Your task to perform on an android device: toggle notification dots Image 0: 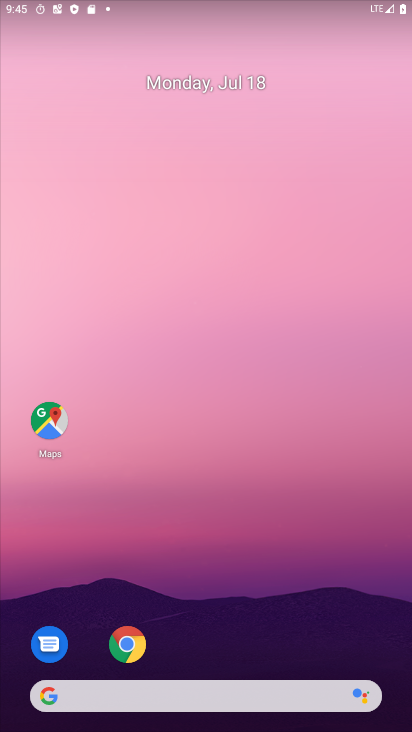
Step 0: drag from (215, 682) to (155, 177)
Your task to perform on an android device: toggle notification dots Image 1: 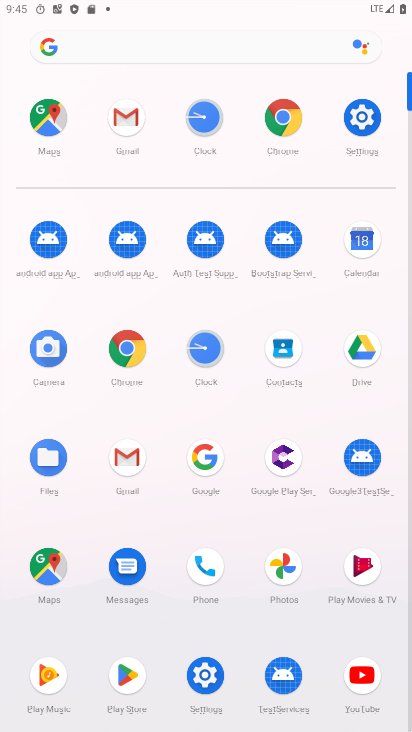
Step 1: click (209, 662)
Your task to perform on an android device: toggle notification dots Image 2: 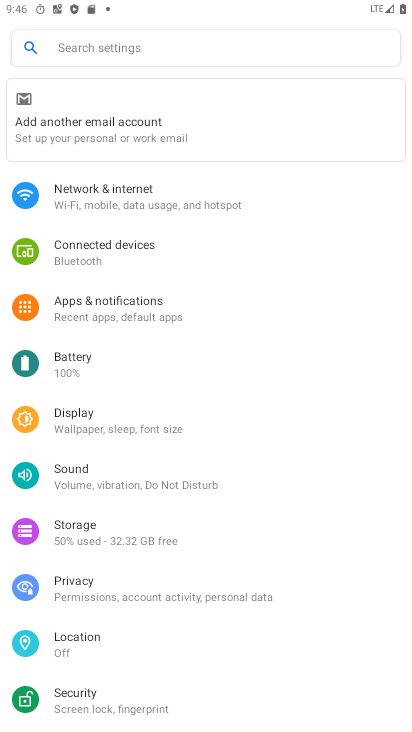
Step 2: click (97, 316)
Your task to perform on an android device: toggle notification dots Image 3: 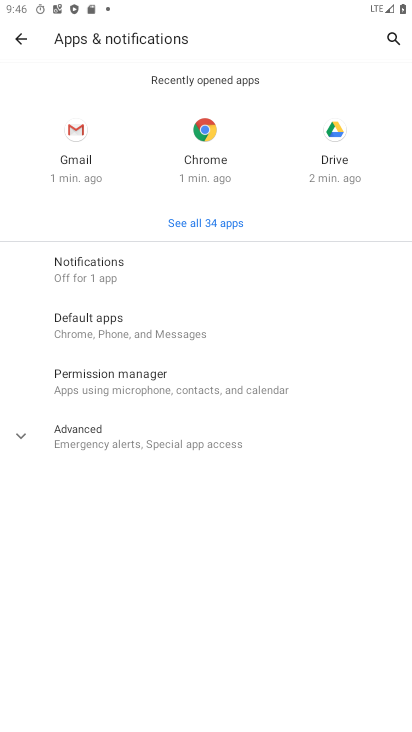
Step 3: click (92, 437)
Your task to perform on an android device: toggle notification dots Image 4: 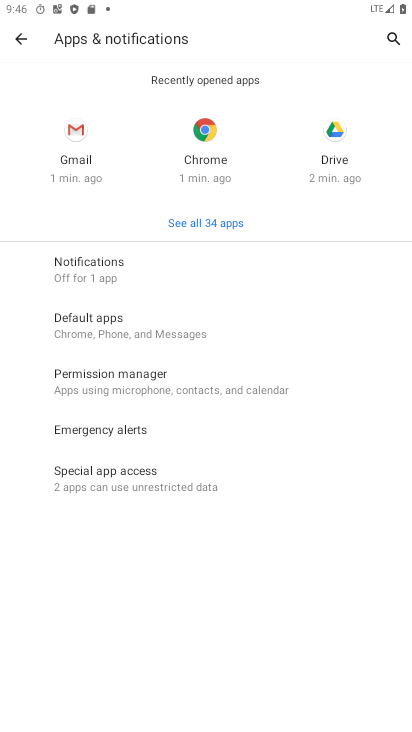
Step 4: click (66, 269)
Your task to perform on an android device: toggle notification dots Image 5: 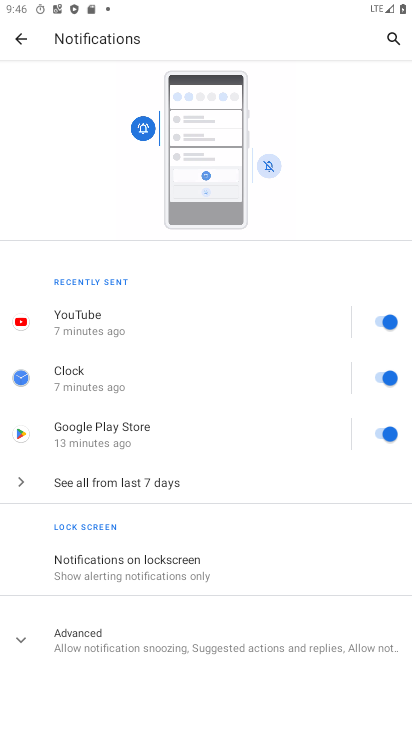
Step 5: click (145, 645)
Your task to perform on an android device: toggle notification dots Image 6: 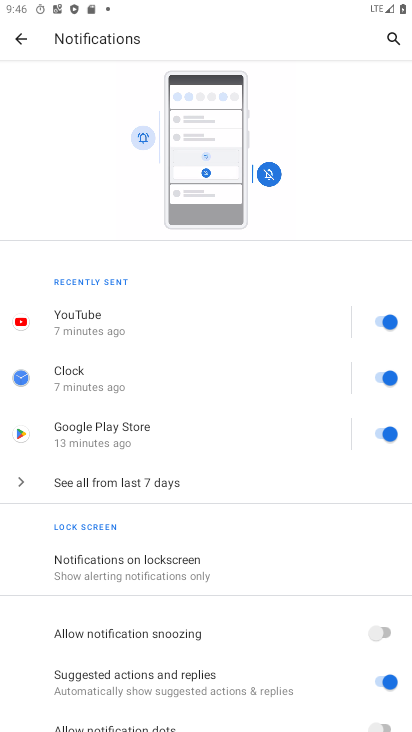
Step 6: task complete